Your task to perform on an android device: Open Amazon Image 0: 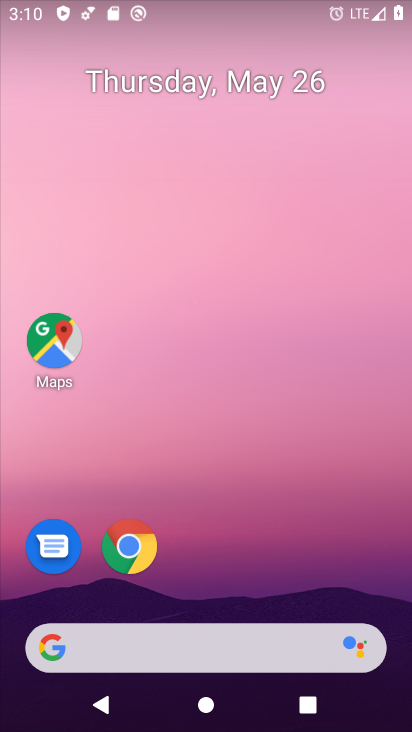
Step 0: click (110, 568)
Your task to perform on an android device: Open Amazon Image 1: 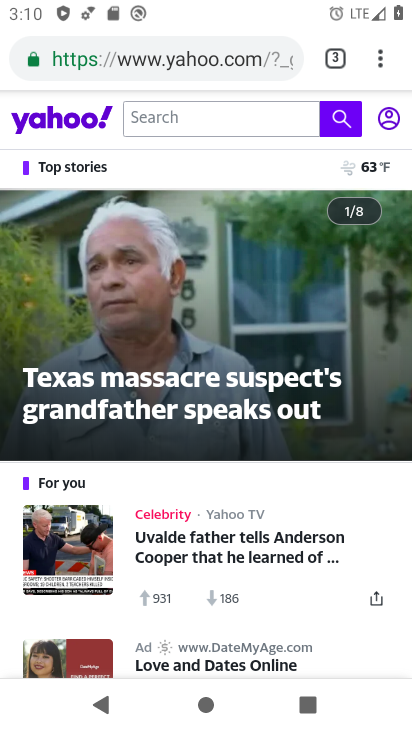
Step 1: click (332, 55)
Your task to perform on an android device: Open Amazon Image 2: 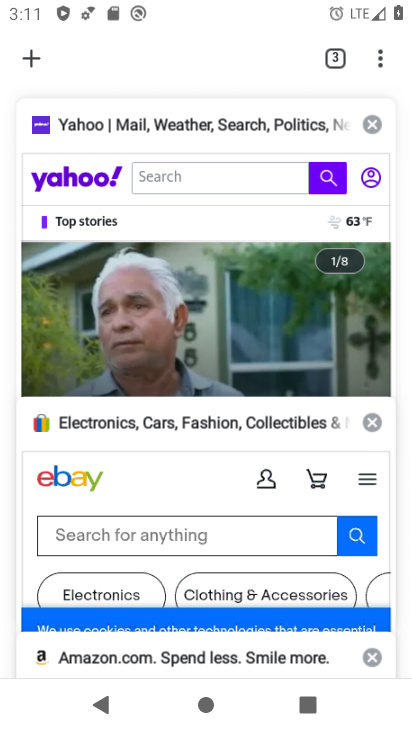
Step 2: click (134, 659)
Your task to perform on an android device: Open Amazon Image 3: 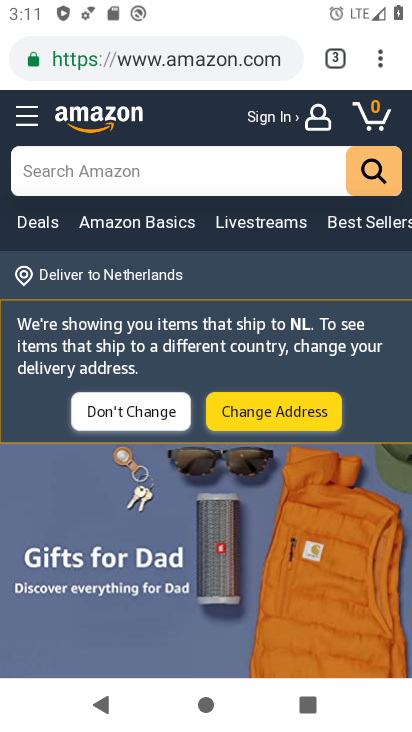
Step 3: task complete